Your task to perform on an android device: Open Chrome and go to settings Image 0: 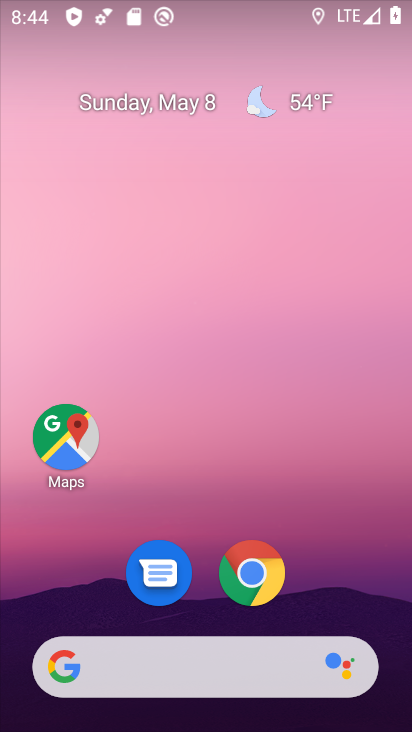
Step 0: click (250, 576)
Your task to perform on an android device: Open Chrome and go to settings Image 1: 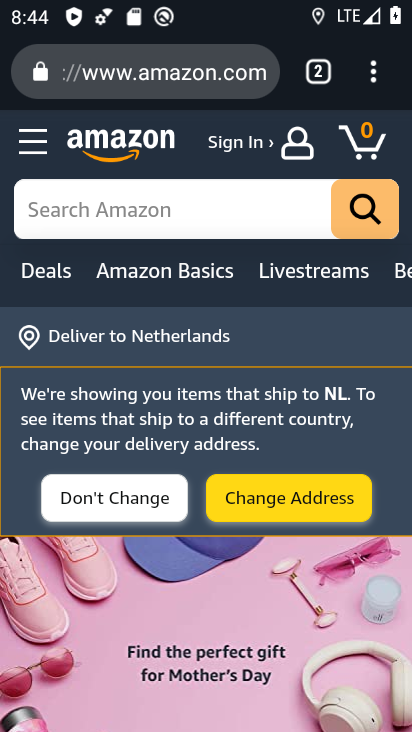
Step 1: click (376, 81)
Your task to perform on an android device: Open Chrome and go to settings Image 2: 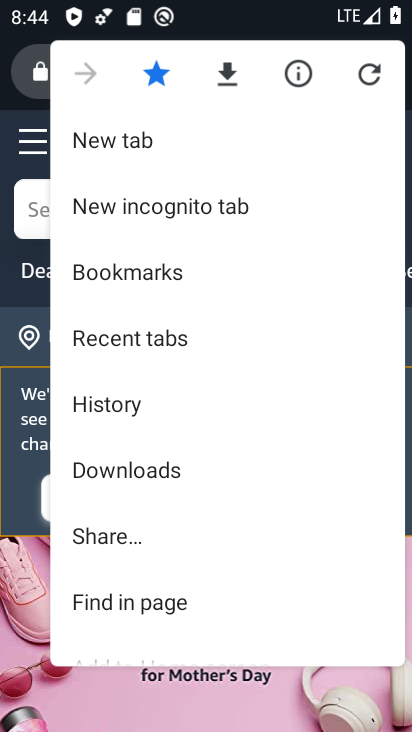
Step 2: drag from (159, 613) to (162, 221)
Your task to perform on an android device: Open Chrome and go to settings Image 3: 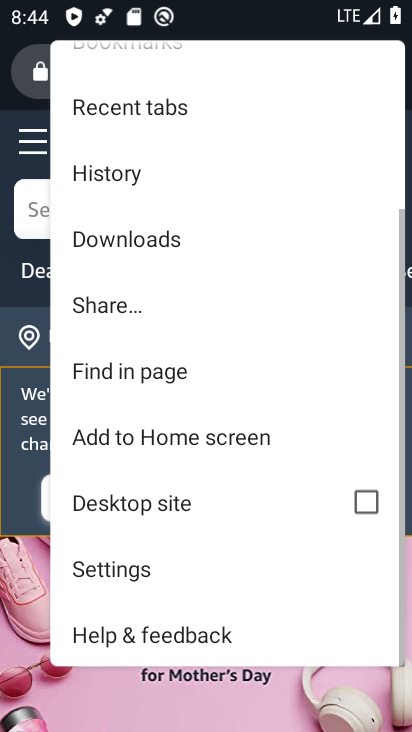
Step 3: click (128, 563)
Your task to perform on an android device: Open Chrome and go to settings Image 4: 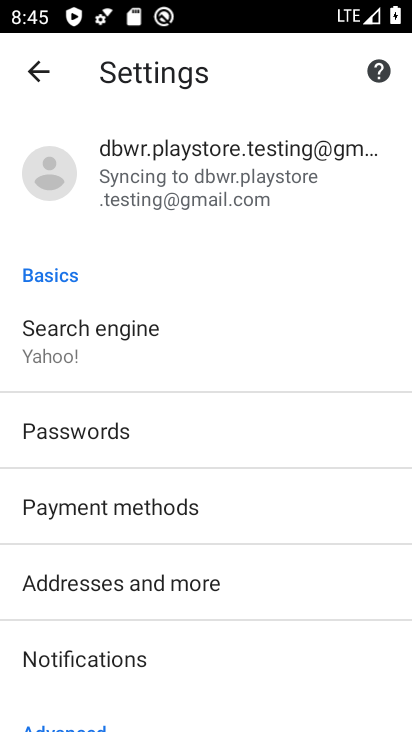
Step 4: task complete